Your task to perform on an android device: turn off airplane mode Image 0: 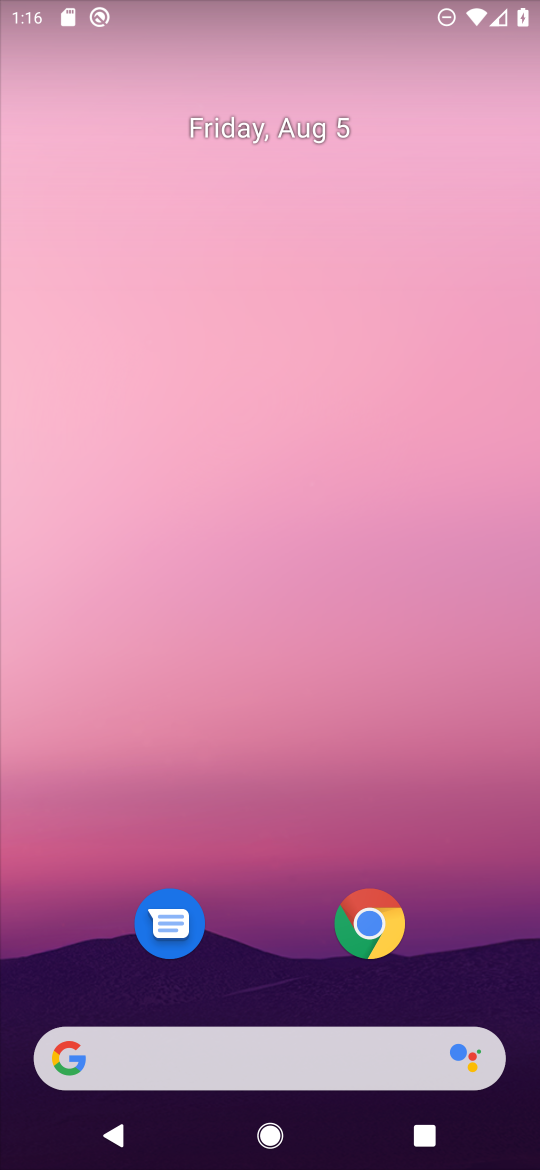
Step 0: drag from (361, 990) to (358, 187)
Your task to perform on an android device: turn off airplane mode Image 1: 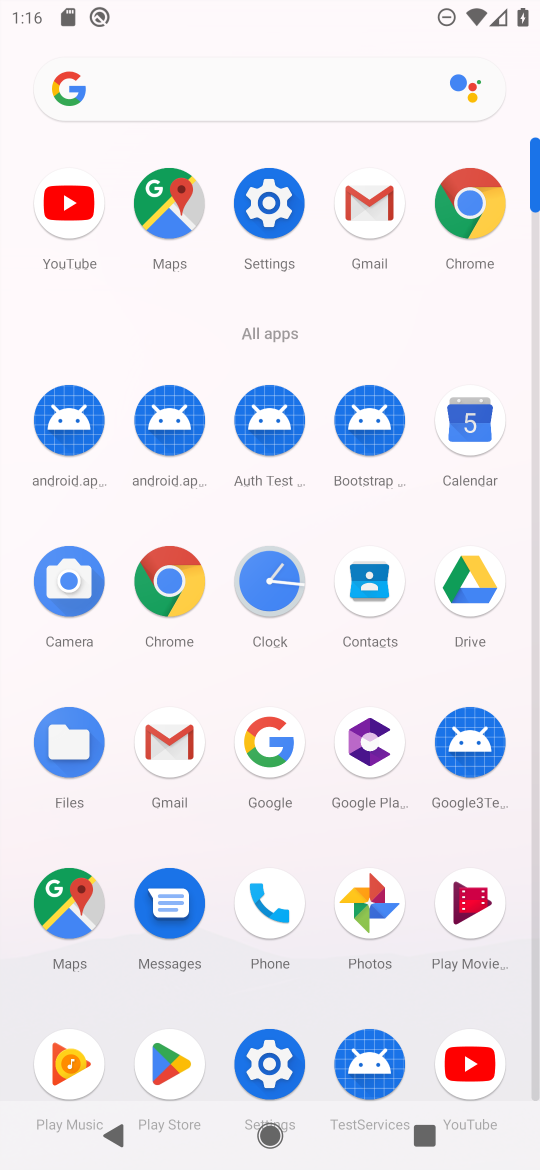
Step 1: click (281, 219)
Your task to perform on an android device: turn off airplane mode Image 2: 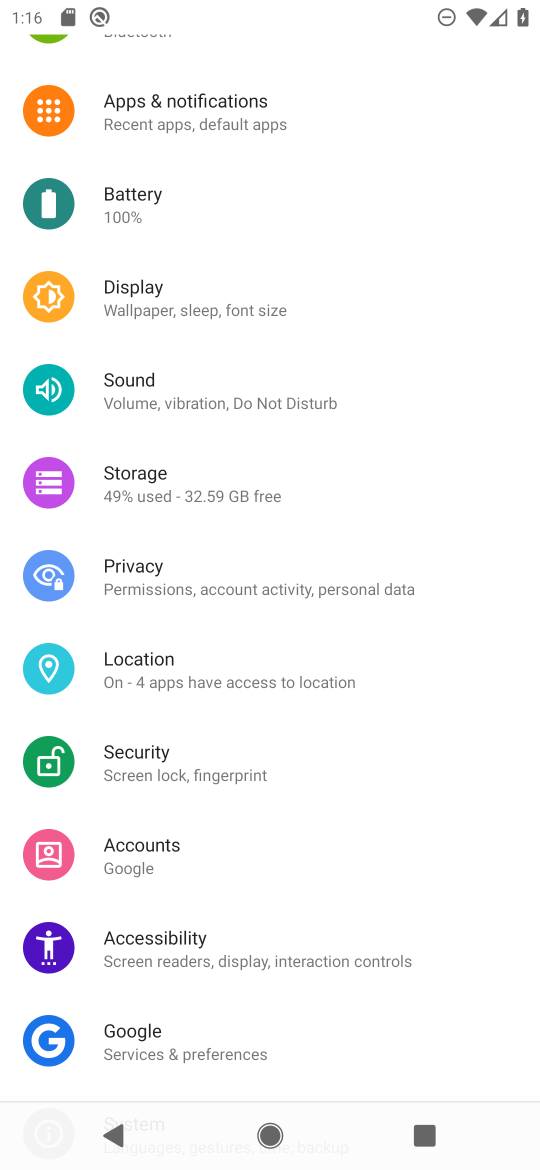
Step 2: drag from (322, 216) to (129, 1092)
Your task to perform on an android device: turn off airplane mode Image 3: 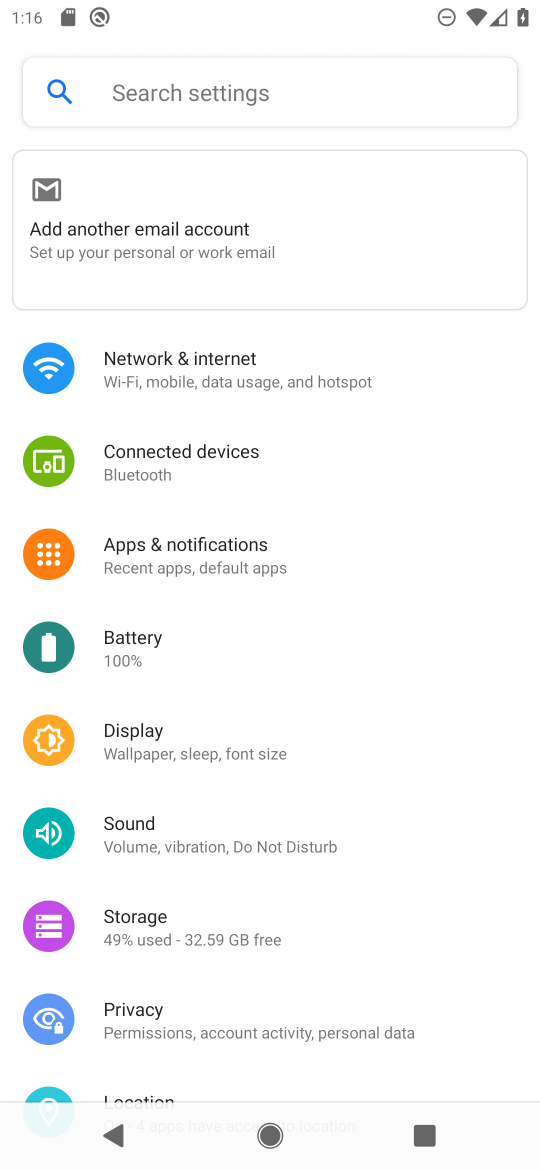
Step 3: click (166, 384)
Your task to perform on an android device: turn off airplane mode Image 4: 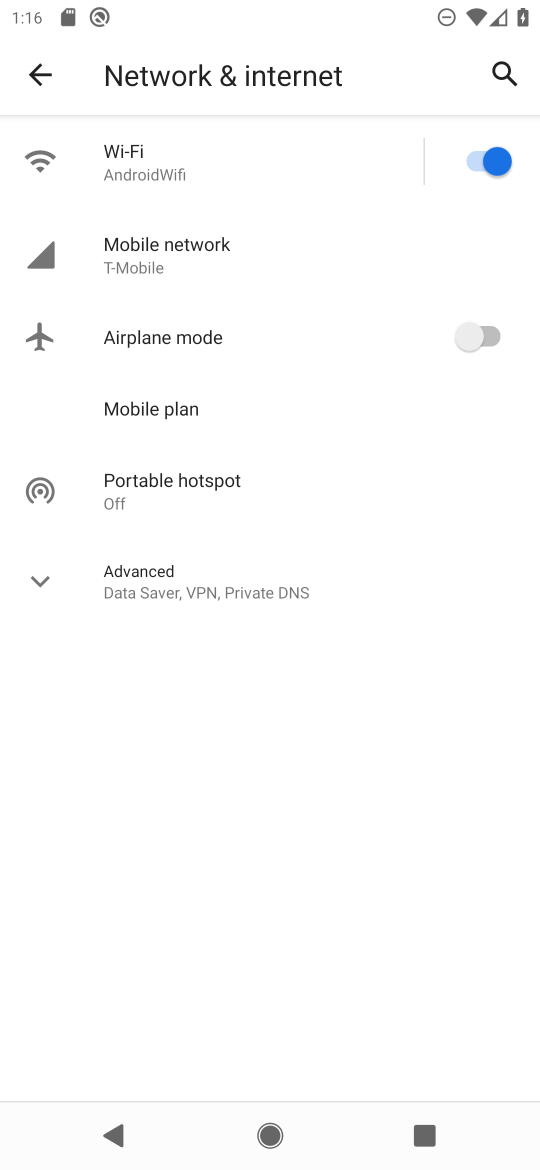
Step 4: task complete